Your task to perform on an android device: clear all cookies in the chrome app Image 0: 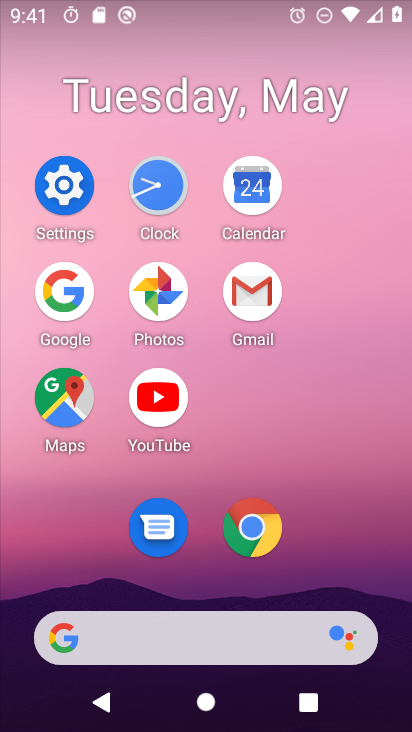
Step 0: click (263, 535)
Your task to perform on an android device: clear all cookies in the chrome app Image 1: 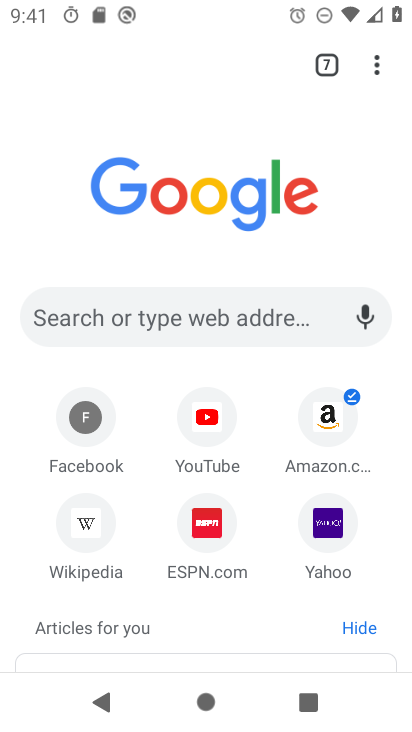
Step 1: click (385, 53)
Your task to perform on an android device: clear all cookies in the chrome app Image 2: 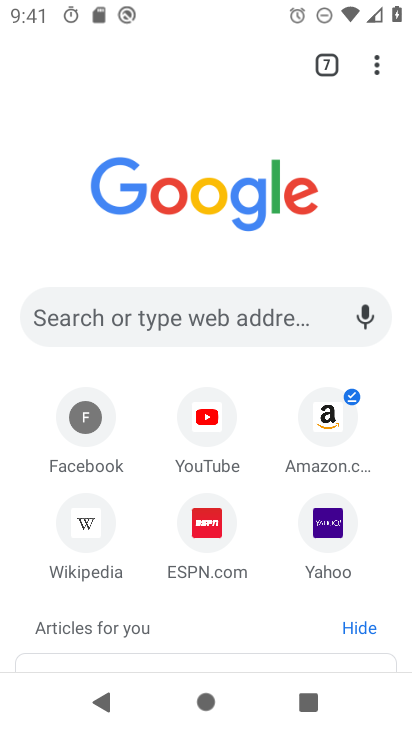
Step 2: click (377, 74)
Your task to perform on an android device: clear all cookies in the chrome app Image 3: 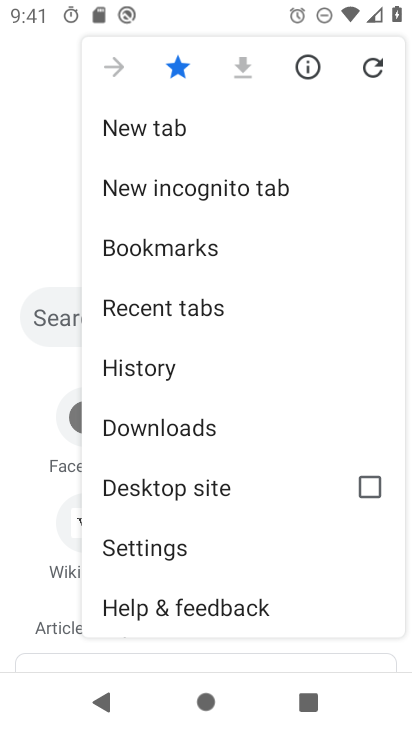
Step 3: drag from (221, 494) to (271, 170)
Your task to perform on an android device: clear all cookies in the chrome app Image 4: 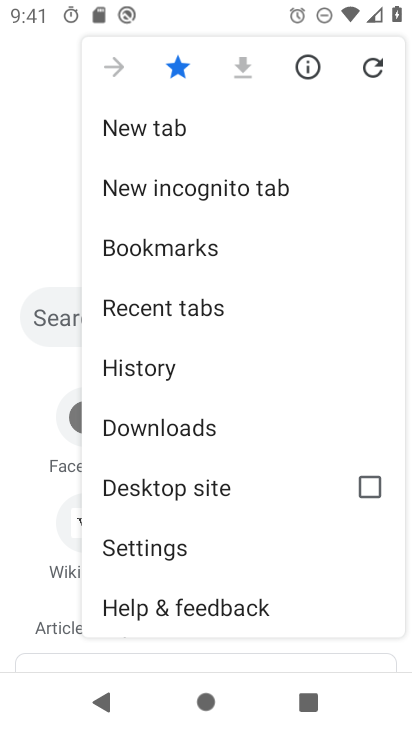
Step 4: click (218, 554)
Your task to perform on an android device: clear all cookies in the chrome app Image 5: 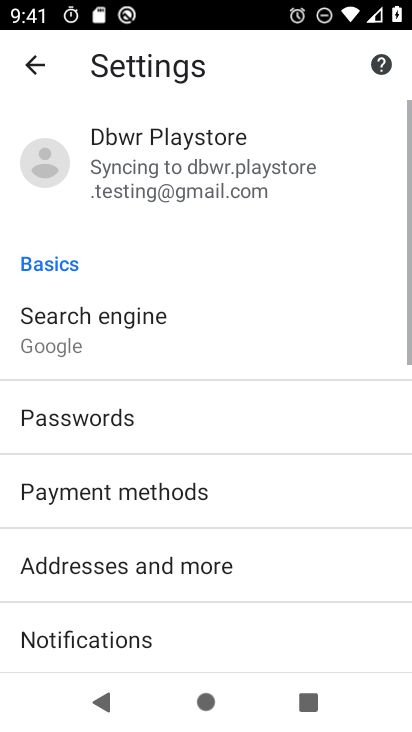
Step 5: drag from (219, 550) to (268, 221)
Your task to perform on an android device: clear all cookies in the chrome app Image 6: 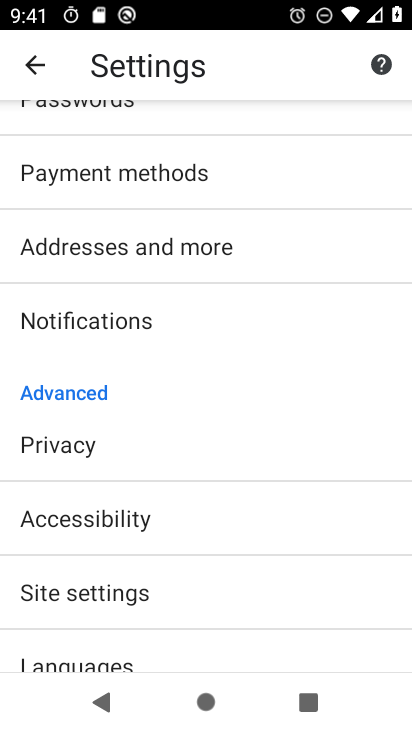
Step 6: click (199, 428)
Your task to perform on an android device: clear all cookies in the chrome app Image 7: 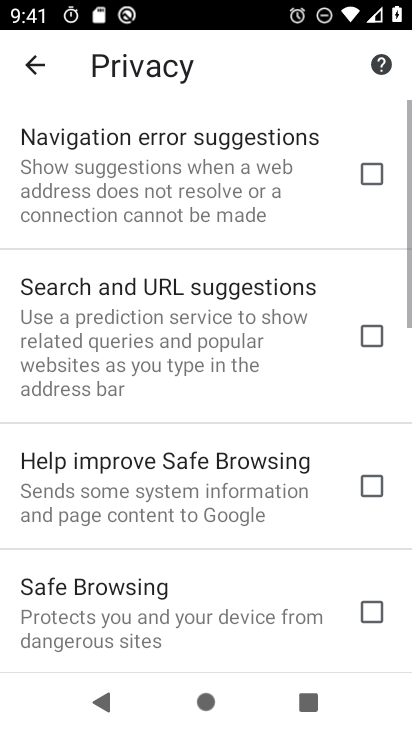
Step 7: drag from (190, 427) to (195, 150)
Your task to perform on an android device: clear all cookies in the chrome app Image 8: 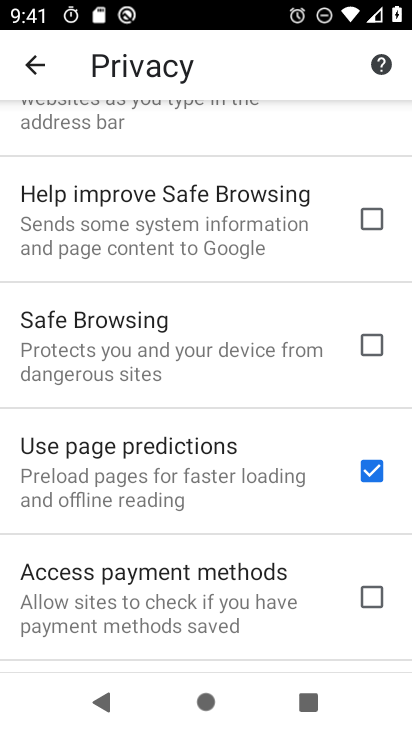
Step 8: drag from (272, 607) to (315, 169)
Your task to perform on an android device: clear all cookies in the chrome app Image 9: 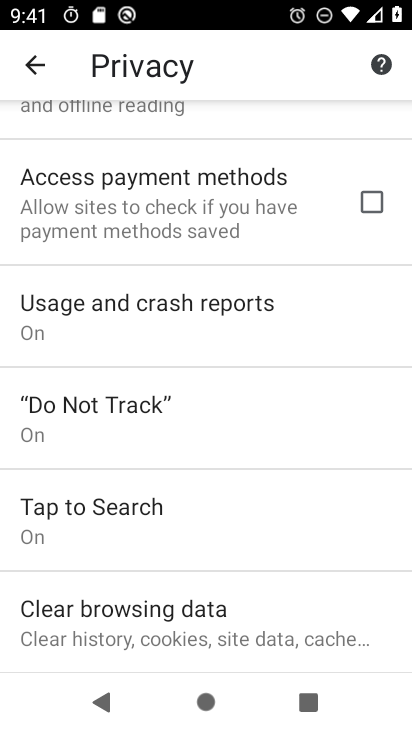
Step 9: drag from (260, 657) to (268, 337)
Your task to perform on an android device: clear all cookies in the chrome app Image 10: 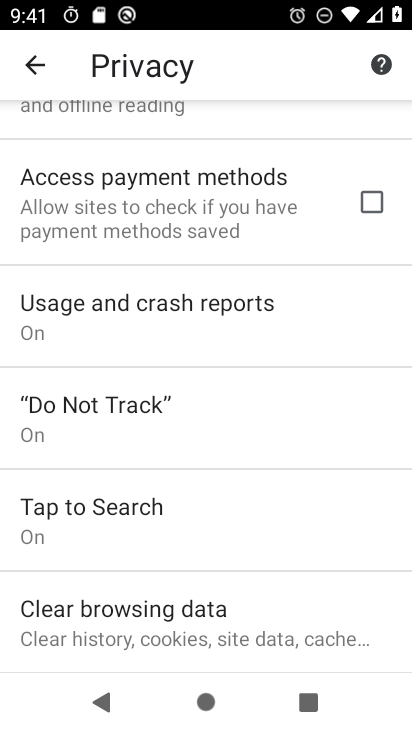
Step 10: click (277, 579)
Your task to perform on an android device: clear all cookies in the chrome app Image 11: 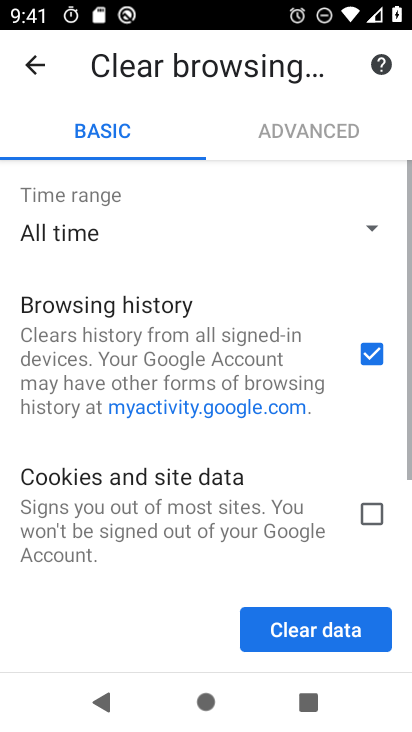
Step 11: drag from (277, 579) to (308, 169)
Your task to perform on an android device: clear all cookies in the chrome app Image 12: 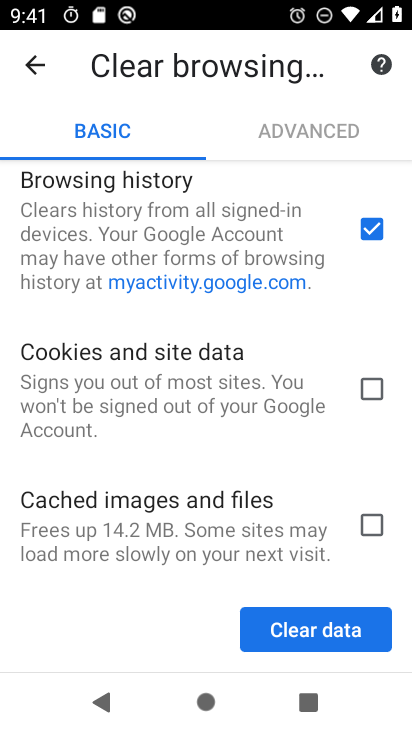
Step 12: click (379, 375)
Your task to perform on an android device: clear all cookies in the chrome app Image 13: 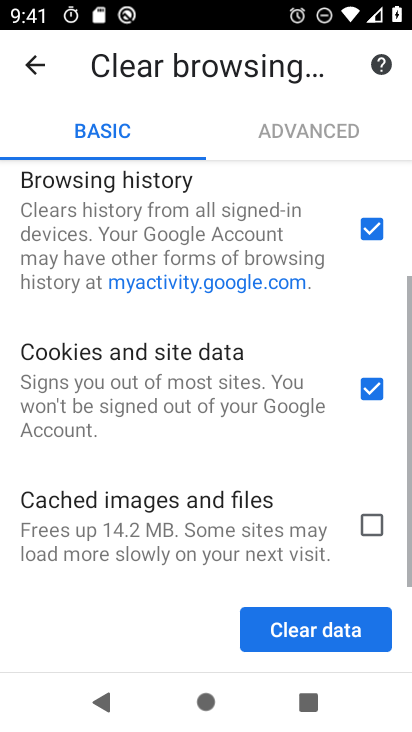
Step 13: click (303, 627)
Your task to perform on an android device: clear all cookies in the chrome app Image 14: 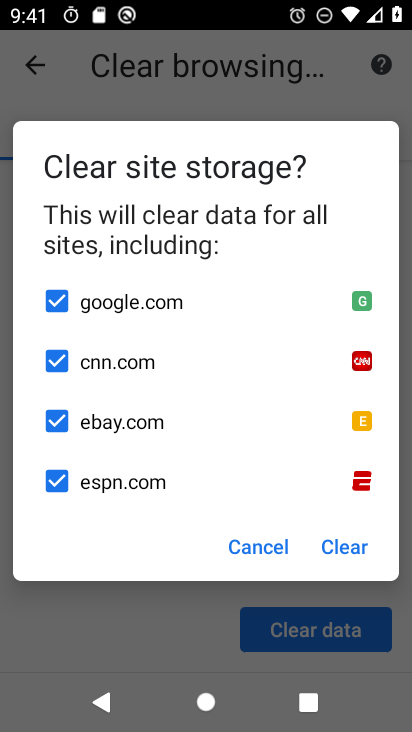
Step 14: click (371, 549)
Your task to perform on an android device: clear all cookies in the chrome app Image 15: 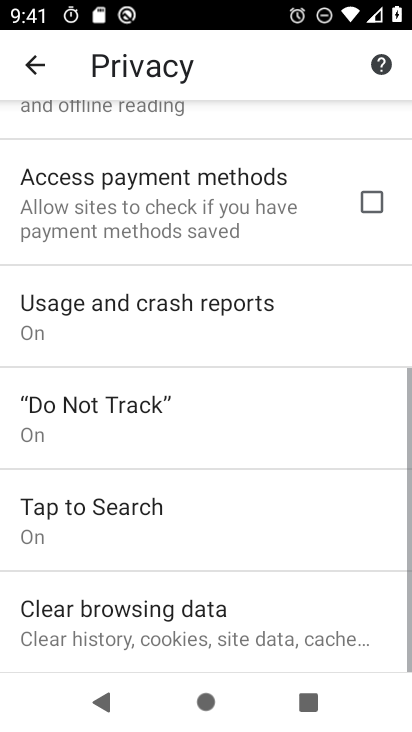
Step 15: task complete